Your task to perform on an android device: Do I have any events tomorrow? Image 0: 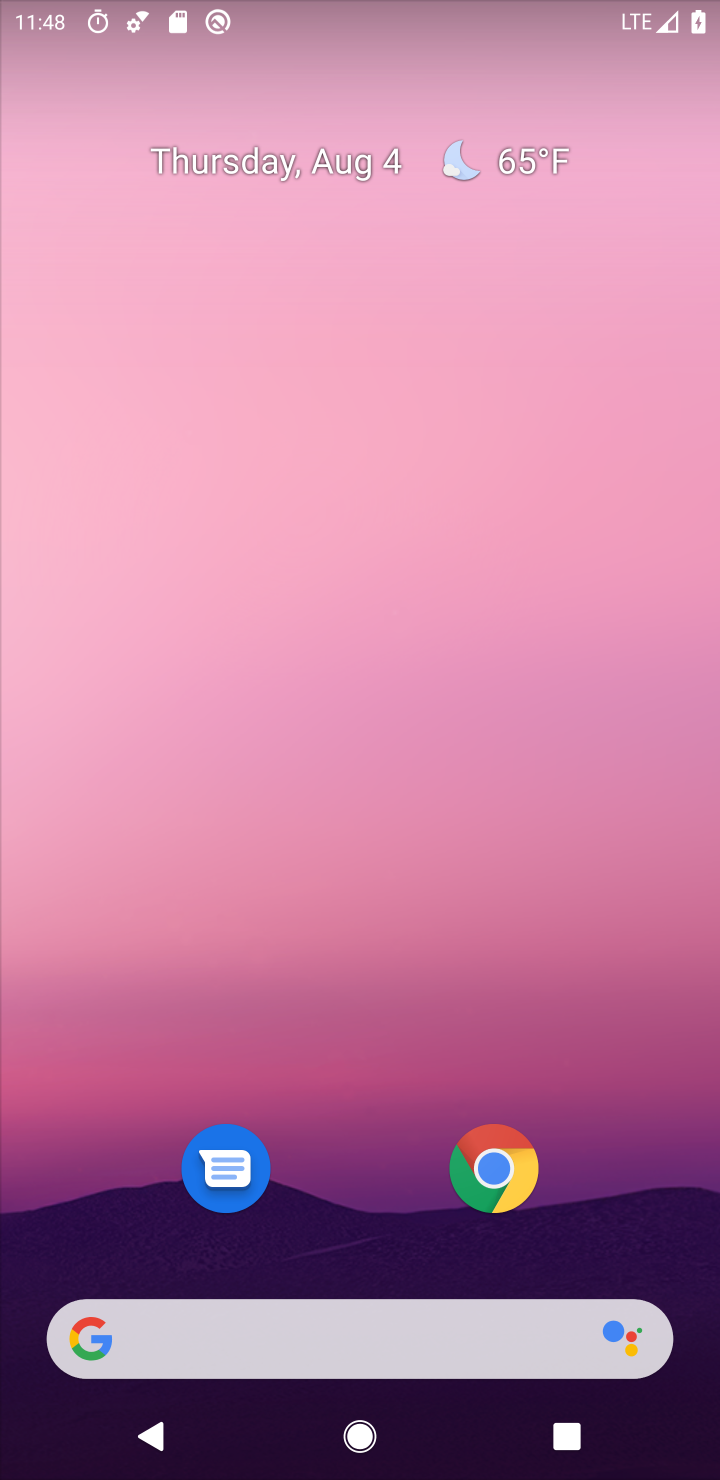
Step 0: drag from (338, 1255) to (355, 8)
Your task to perform on an android device: Do I have any events tomorrow? Image 1: 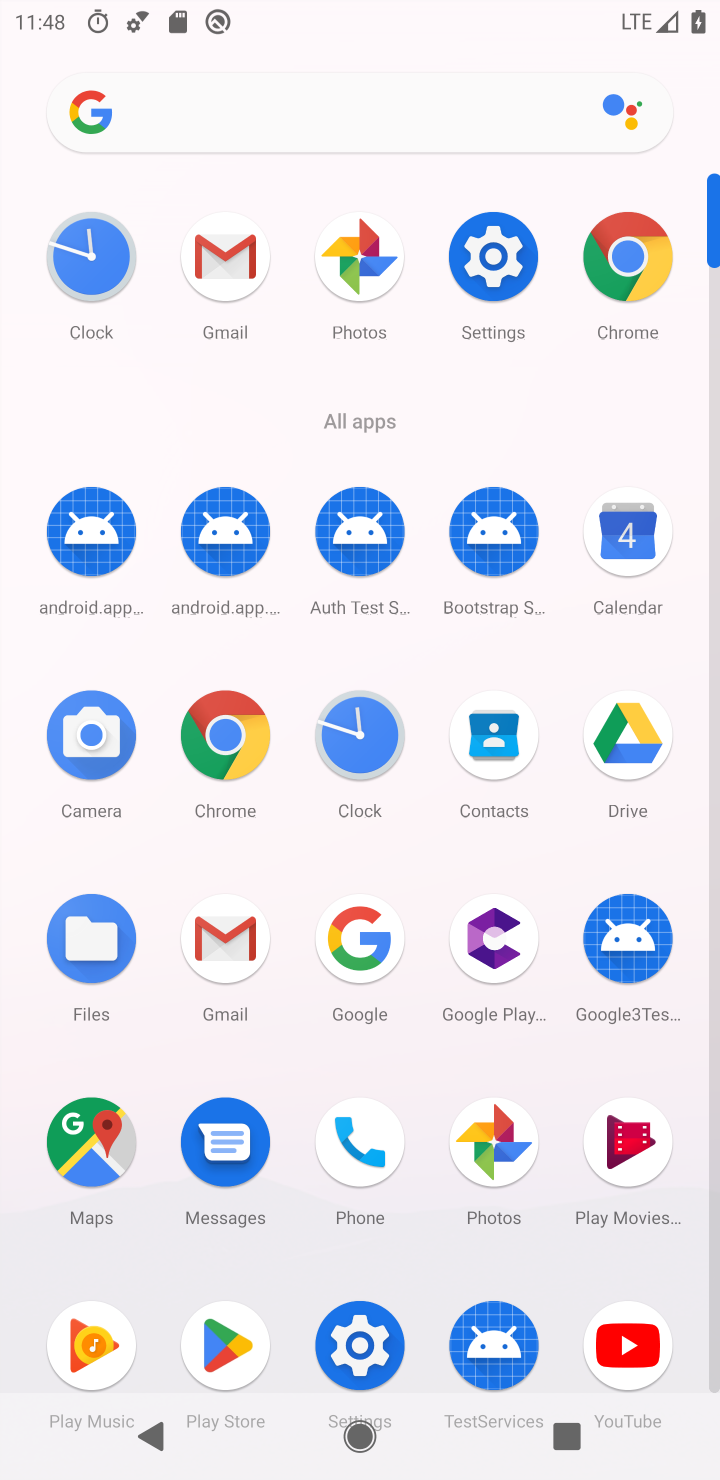
Step 1: click (638, 562)
Your task to perform on an android device: Do I have any events tomorrow? Image 2: 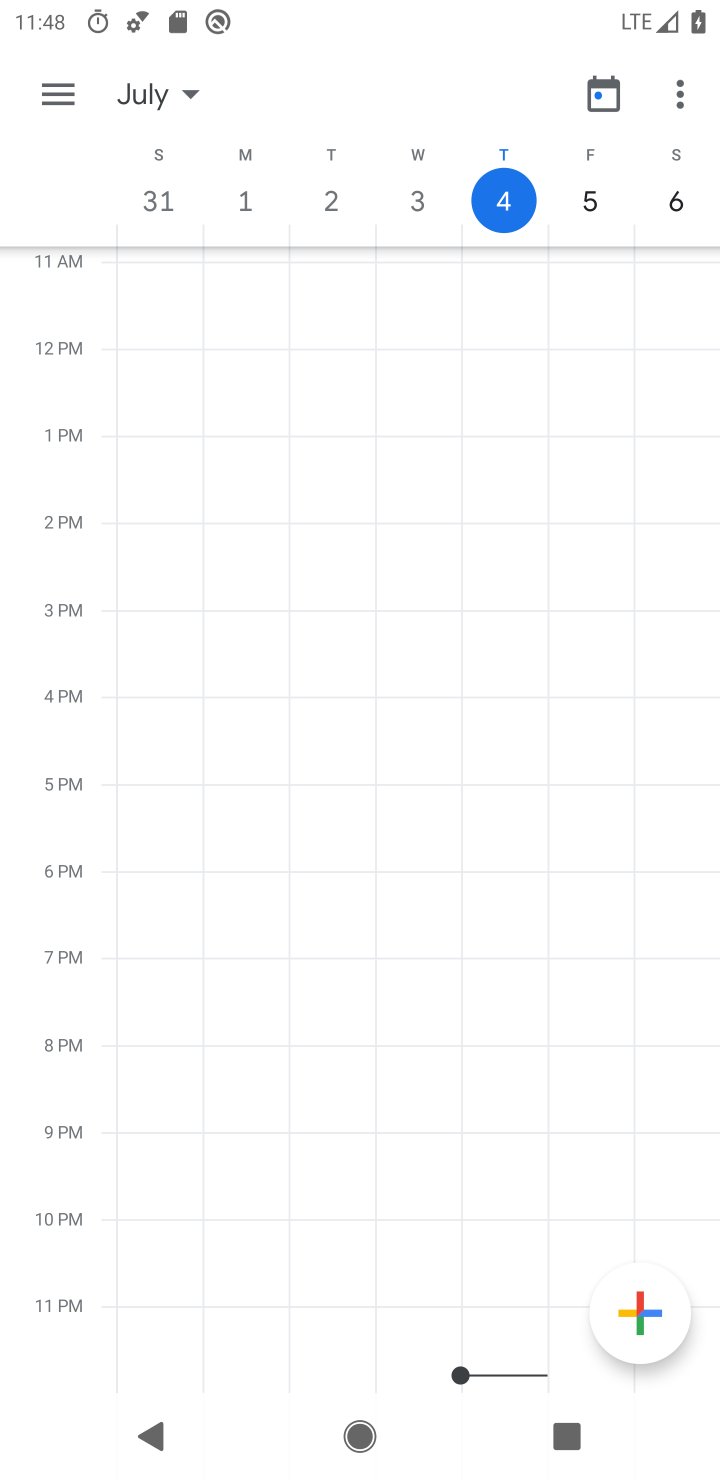
Step 2: click (40, 97)
Your task to perform on an android device: Do I have any events tomorrow? Image 3: 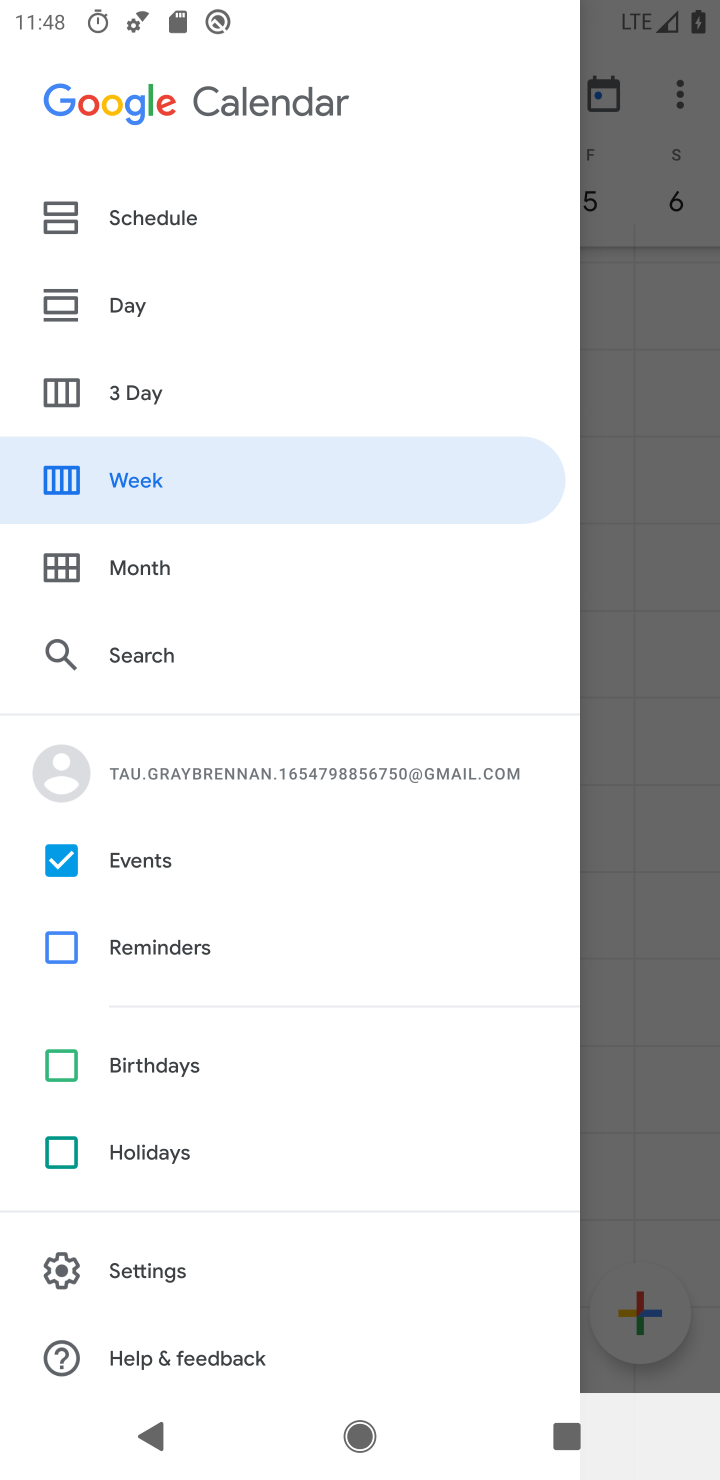
Step 3: click (173, 413)
Your task to perform on an android device: Do I have any events tomorrow? Image 4: 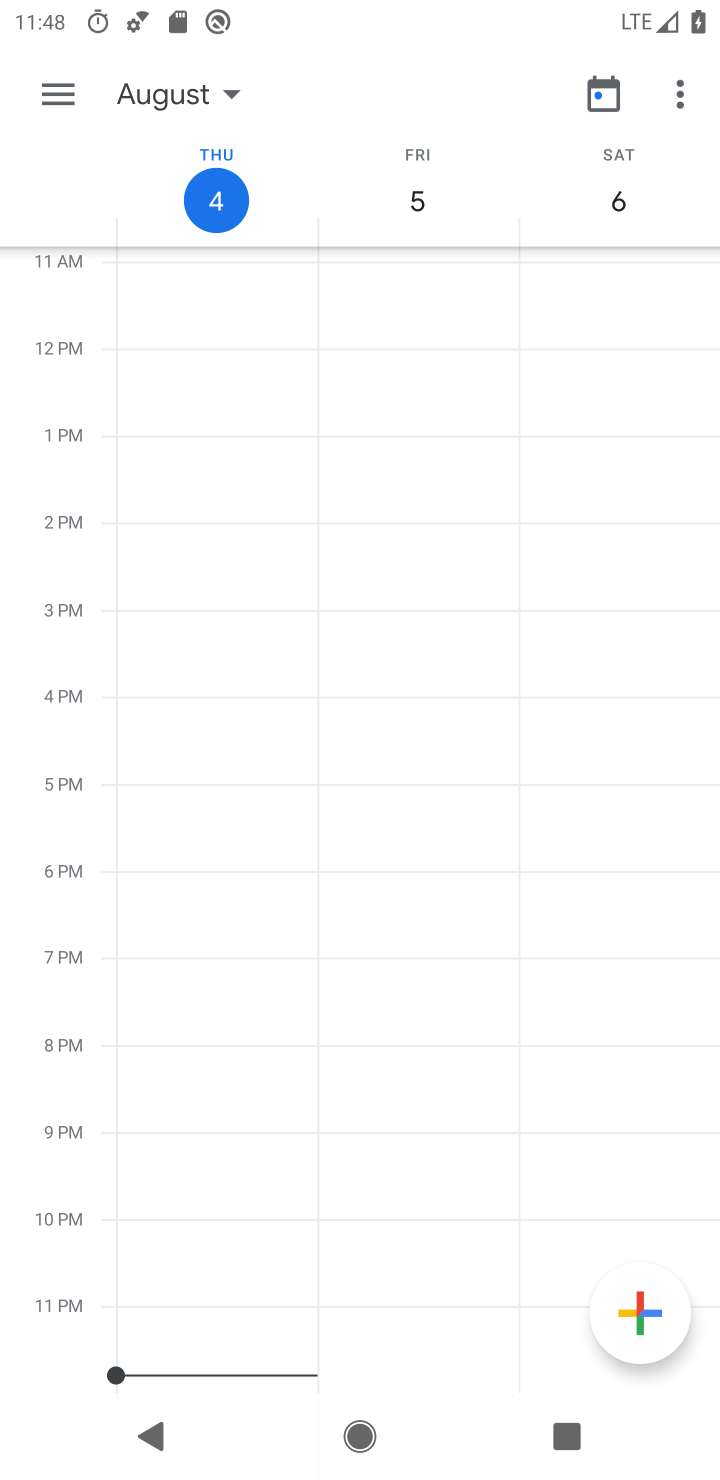
Step 4: click (416, 192)
Your task to perform on an android device: Do I have any events tomorrow? Image 5: 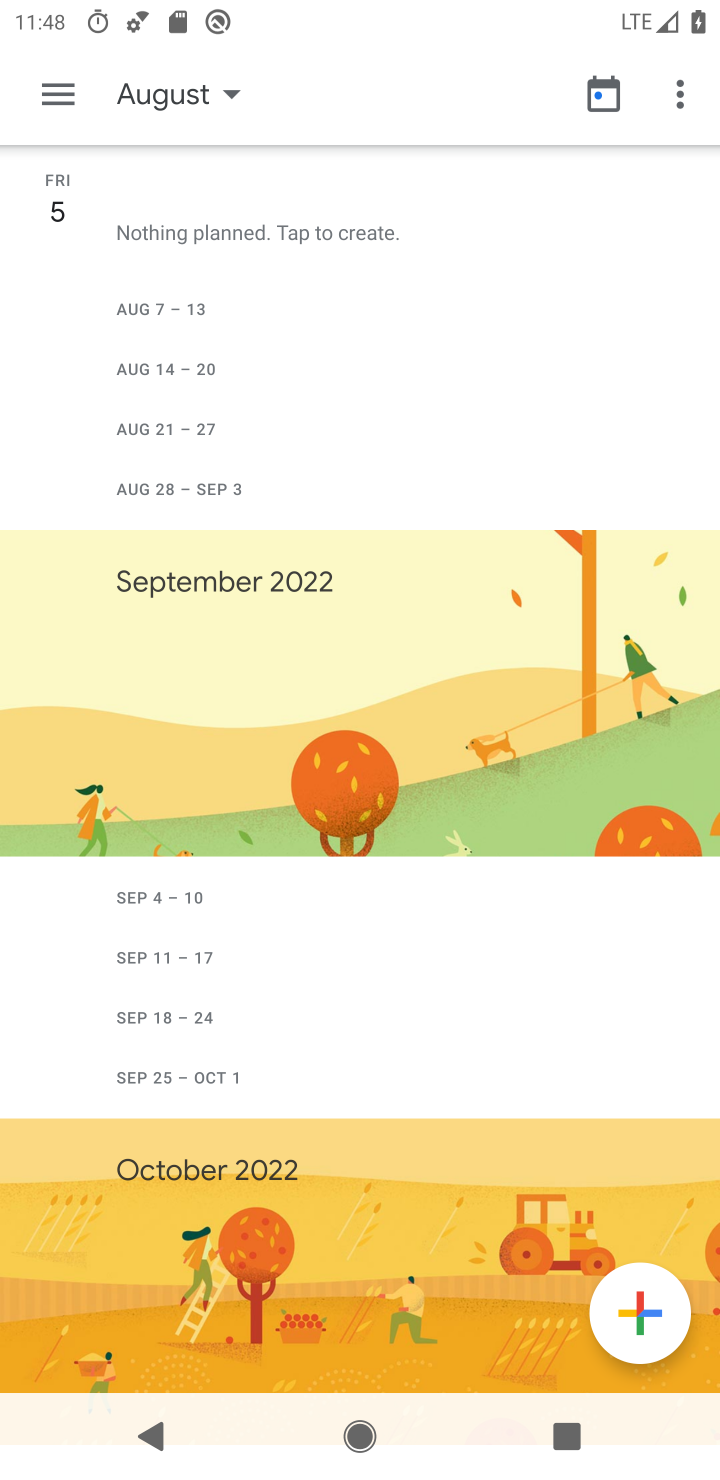
Step 5: task complete